Your task to perform on an android device: Open the clock app Image 0: 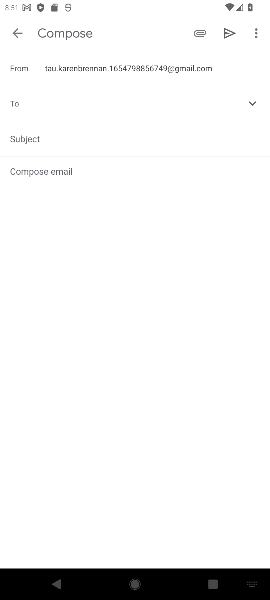
Step 0: press home button
Your task to perform on an android device: Open the clock app Image 1: 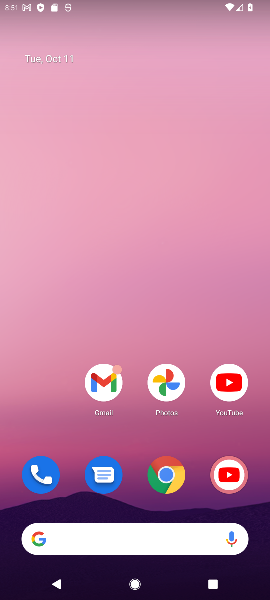
Step 1: drag from (89, 428) to (216, 59)
Your task to perform on an android device: Open the clock app Image 2: 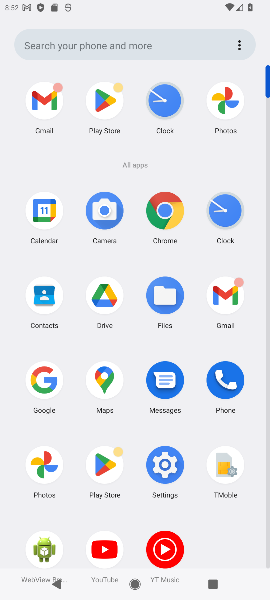
Step 2: click (225, 207)
Your task to perform on an android device: Open the clock app Image 3: 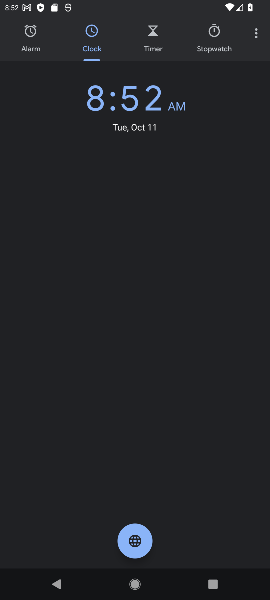
Step 3: click (150, 52)
Your task to perform on an android device: Open the clock app Image 4: 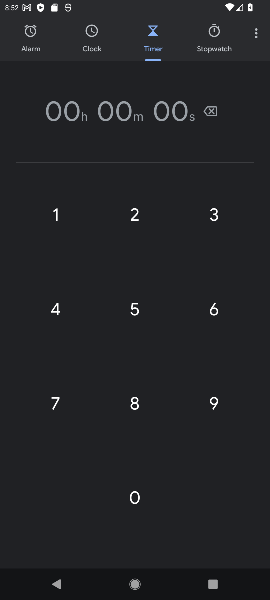
Step 4: click (103, 57)
Your task to perform on an android device: Open the clock app Image 5: 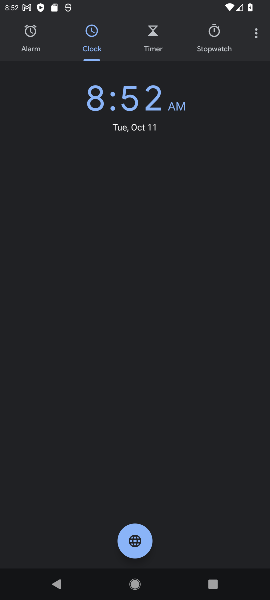
Step 5: click (143, 542)
Your task to perform on an android device: Open the clock app Image 6: 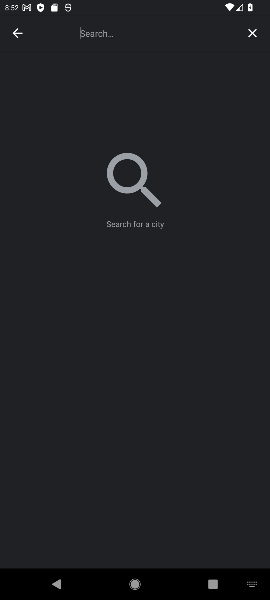
Step 6: type "norway"
Your task to perform on an android device: Open the clock app Image 7: 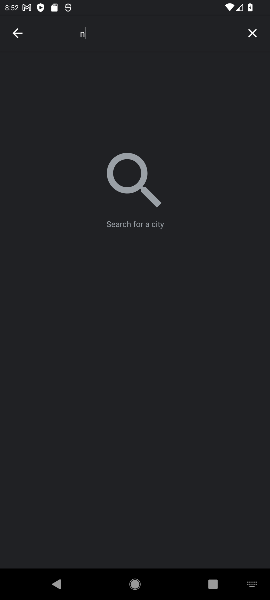
Step 7: type ""
Your task to perform on an android device: Open the clock app Image 8: 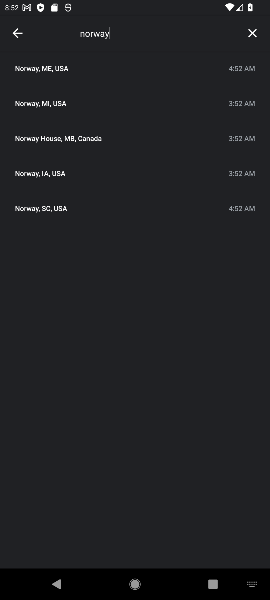
Step 8: press enter
Your task to perform on an android device: Open the clock app Image 9: 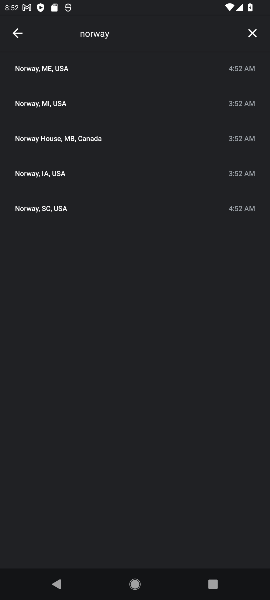
Step 9: click (35, 72)
Your task to perform on an android device: Open the clock app Image 10: 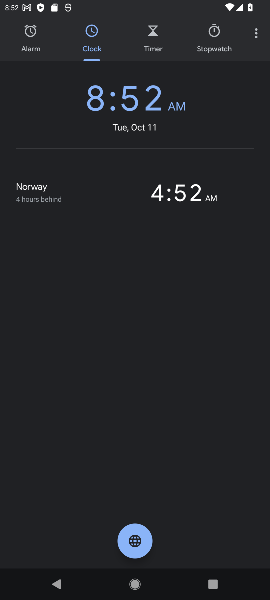
Step 10: click (53, 186)
Your task to perform on an android device: Open the clock app Image 11: 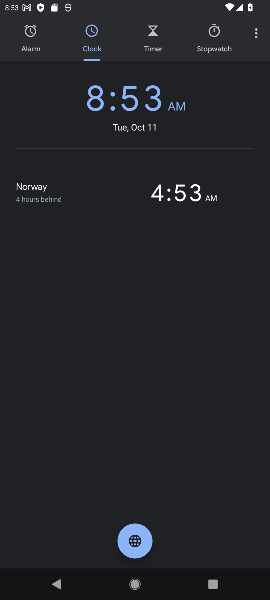
Step 11: press back button
Your task to perform on an android device: Open the clock app Image 12: 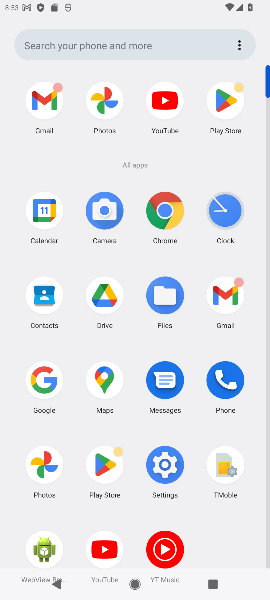
Step 12: click (230, 228)
Your task to perform on an android device: Open the clock app Image 13: 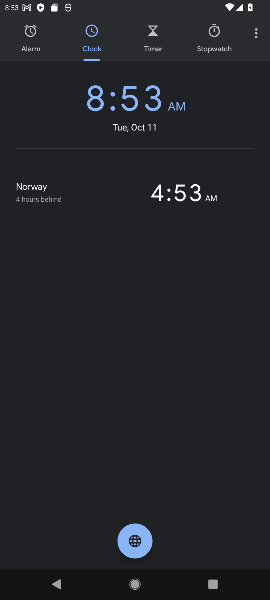
Step 13: click (26, 65)
Your task to perform on an android device: Open the clock app Image 14: 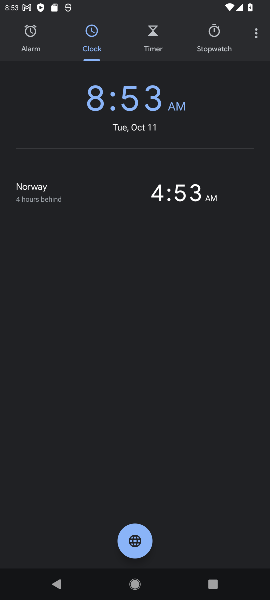
Step 14: click (34, 33)
Your task to perform on an android device: Open the clock app Image 15: 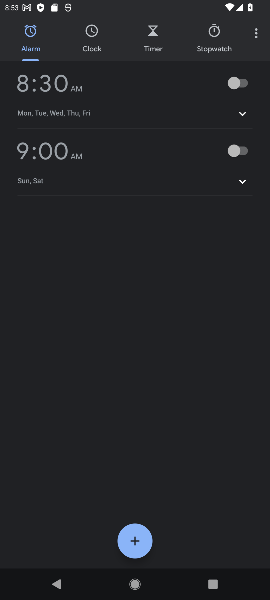
Step 15: click (149, 30)
Your task to perform on an android device: Open the clock app Image 16: 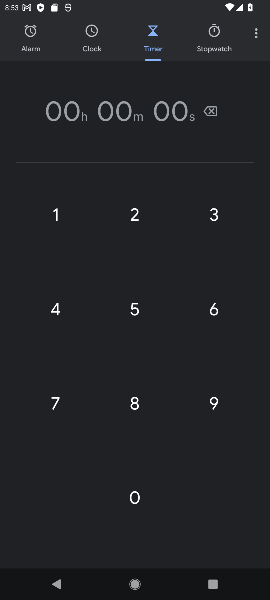
Step 16: click (240, 47)
Your task to perform on an android device: Open the clock app Image 17: 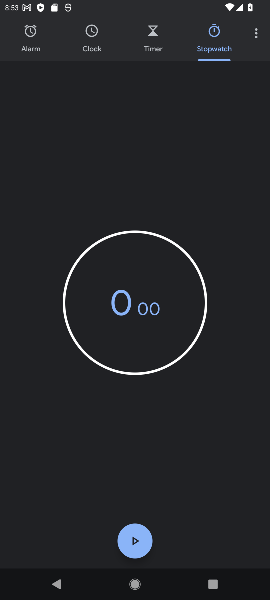
Step 17: click (103, 47)
Your task to perform on an android device: Open the clock app Image 18: 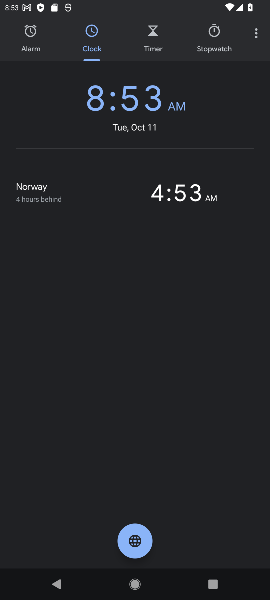
Step 18: click (149, 40)
Your task to perform on an android device: Open the clock app Image 19: 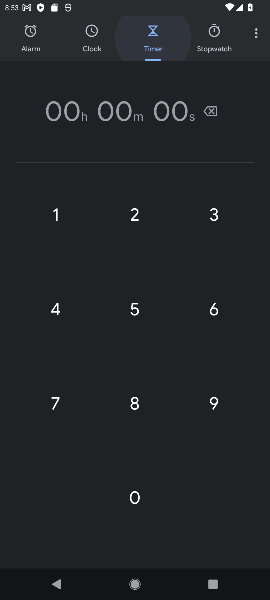
Step 19: click (231, 48)
Your task to perform on an android device: Open the clock app Image 20: 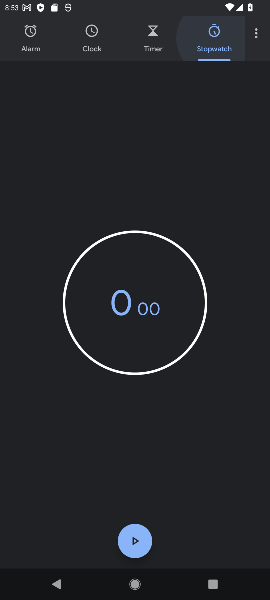
Step 20: click (94, 54)
Your task to perform on an android device: Open the clock app Image 21: 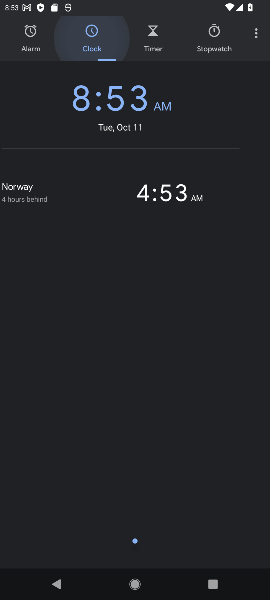
Step 21: click (41, 54)
Your task to perform on an android device: Open the clock app Image 22: 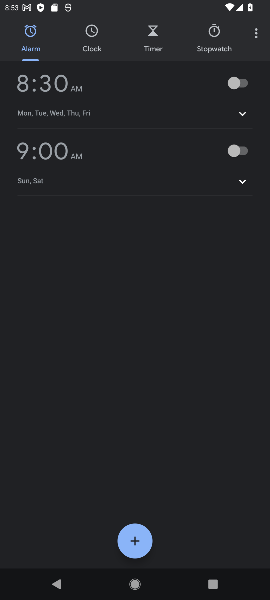
Step 22: drag from (131, 468) to (147, 340)
Your task to perform on an android device: Open the clock app Image 23: 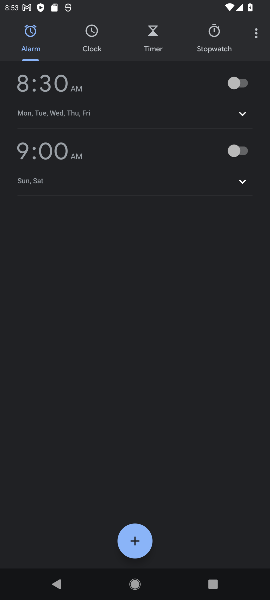
Step 23: click (224, 53)
Your task to perform on an android device: Open the clock app Image 24: 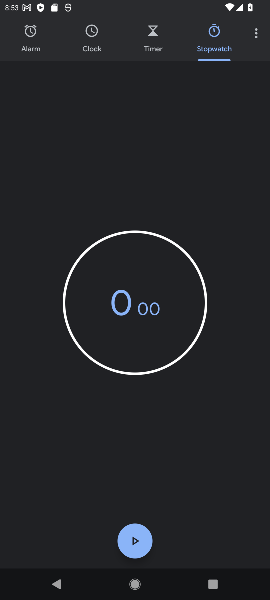
Step 24: click (249, 33)
Your task to perform on an android device: Open the clock app Image 25: 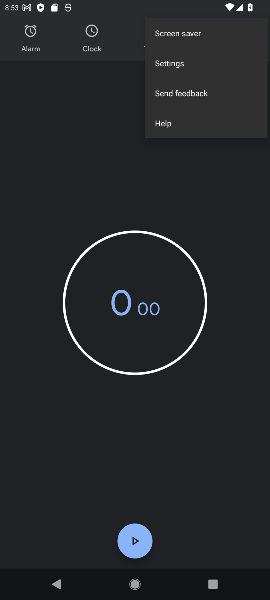
Step 25: click (180, 66)
Your task to perform on an android device: Open the clock app Image 26: 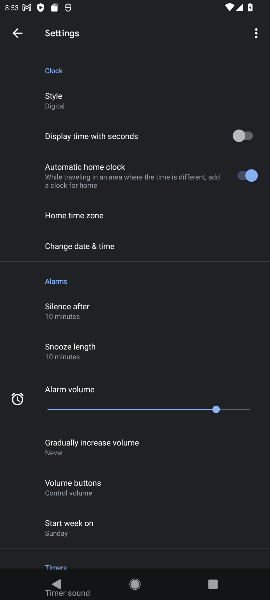
Step 26: click (238, 144)
Your task to perform on an android device: Open the clock app Image 27: 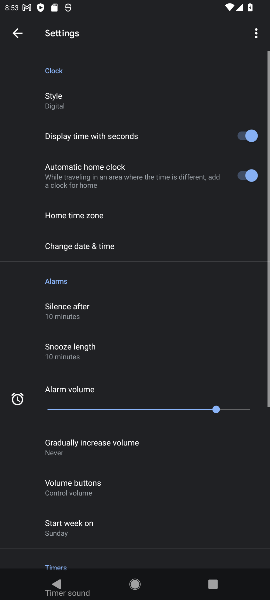
Step 27: click (238, 144)
Your task to perform on an android device: Open the clock app Image 28: 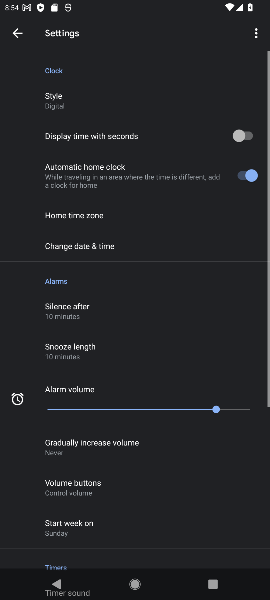
Step 28: click (245, 174)
Your task to perform on an android device: Open the clock app Image 29: 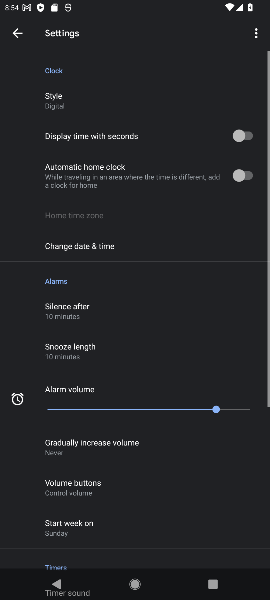
Step 29: click (245, 174)
Your task to perform on an android device: Open the clock app Image 30: 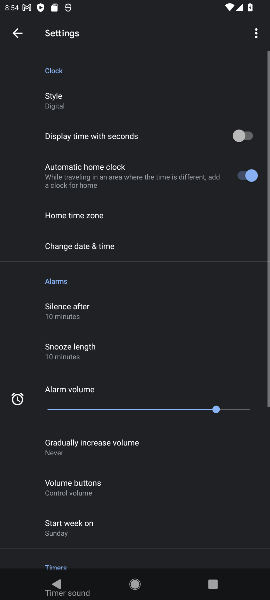
Step 30: drag from (221, 412) to (252, 416)
Your task to perform on an android device: Open the clock app Image 31: 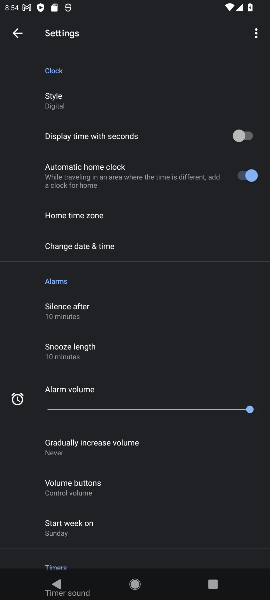
Step 31: drag from (219, 411) to (27, 407)
Your task to perform on an android device: Open the clock app Image 32: 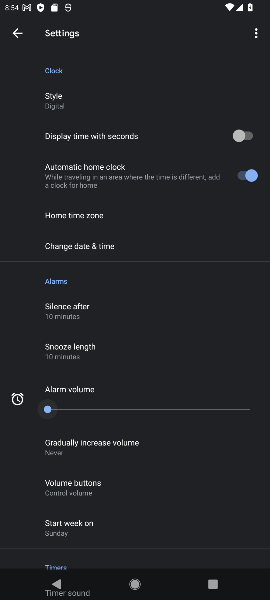
Step 32: drag from (50, 408) to (252, 414)
Your task to perform on an android device: Open the clock app Image 33: 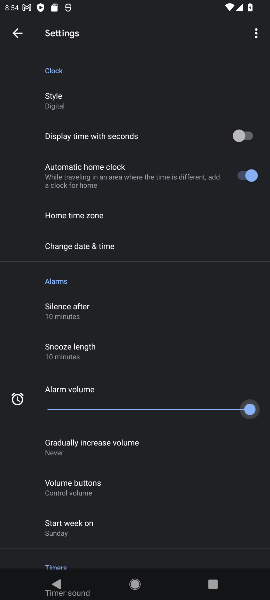
Step 33: drag from (237, 530) to (205, 455)
Your task to perform on an android device: Open the clock app Image 34: 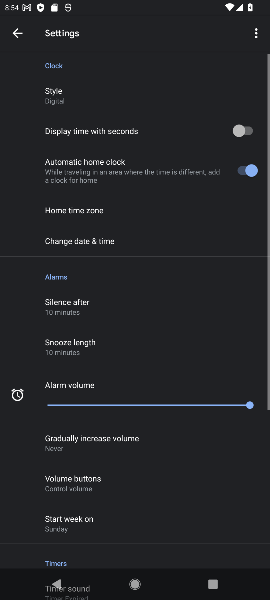
Step 34: click (21, 41)
Your task to perform on an android device: Open the clock app Image 35: 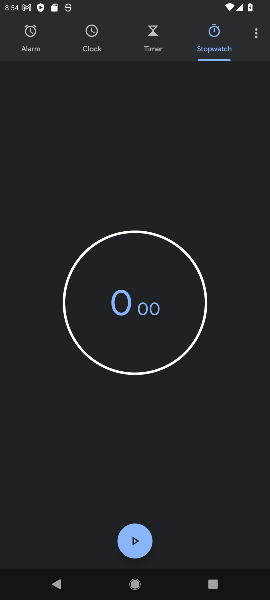
Step 35: click (141, 34)
Your task to perform on an android device: Open the clock app Image 36: 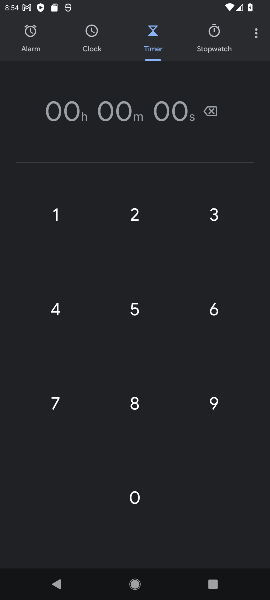
Step 36: click (104, 46)
Your task to perform on an android device: Open the clock app Image 37: 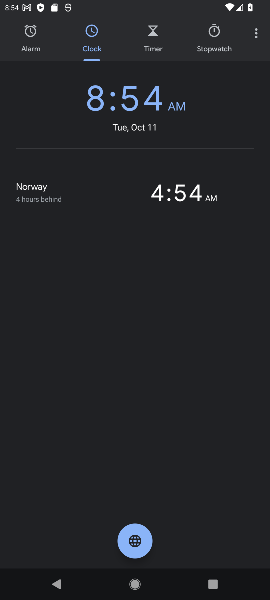
Step 37: click (34, 50)
Your task to perform on an android device: Open the clock app Image 38: 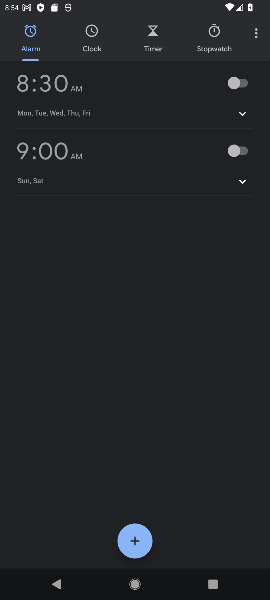
Step 38: click (146, 49)
Your task to perform on an android device: Open the clock app Image 39: 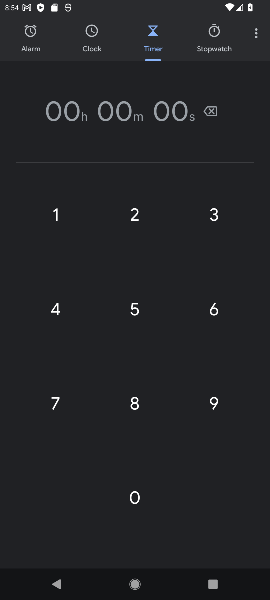
Step 39: click (236, 37)
Your task to perform on an android device: Open the clock app Image 40: 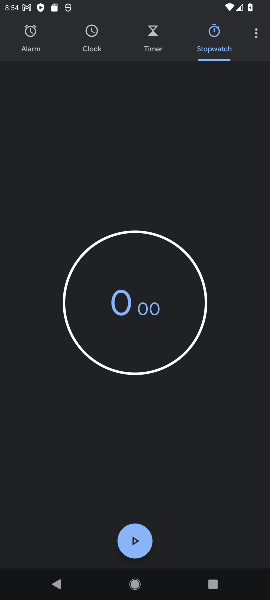
Step 40: click (151, 56)
Your task to perform on an android device: Open the clock app Image 41: 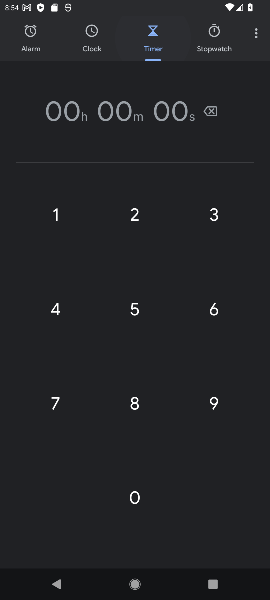
Step 41: click (93, 59)
Your task to perform on an android device: Open the clock app Image 42: 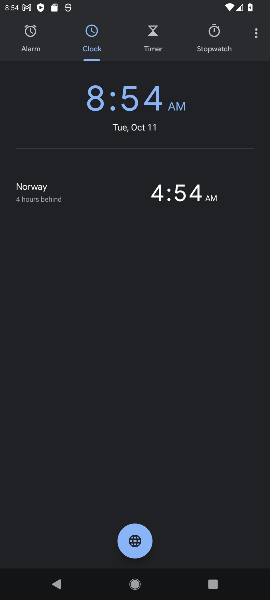
Step 42: click (36, 53)
Your task to perform on an android device: Open the clock app Image 43: 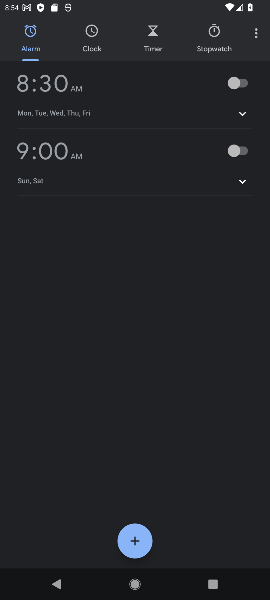
Step 43: task complete